Your task to perform on an android device: clear history in the chrome app Image 0: 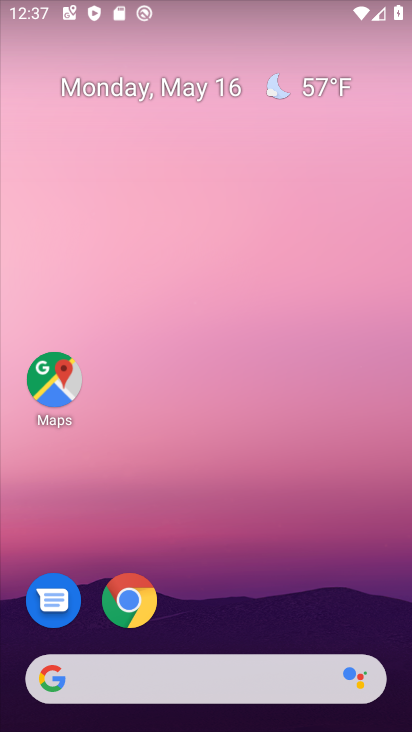
Step 0: click (145, 606)
Your task to perform on an android device: clear history in the chrome app Image 1: 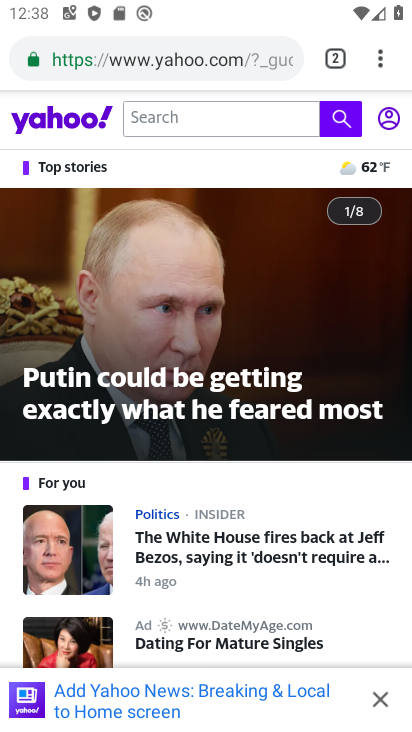
Step 1: click (383, 58)
Your task to perform on an android device: clear history in the chrome app Image 2: 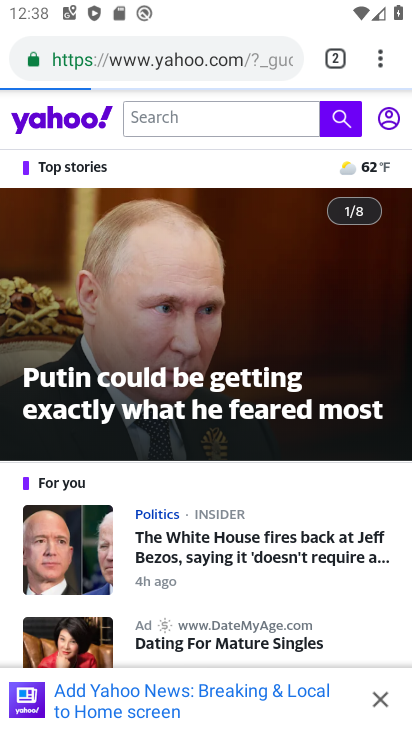
Step 2: drag from (374, 64) to (180, 324)
Your task to perform on an android device: clear history in the chrome app Image 3: 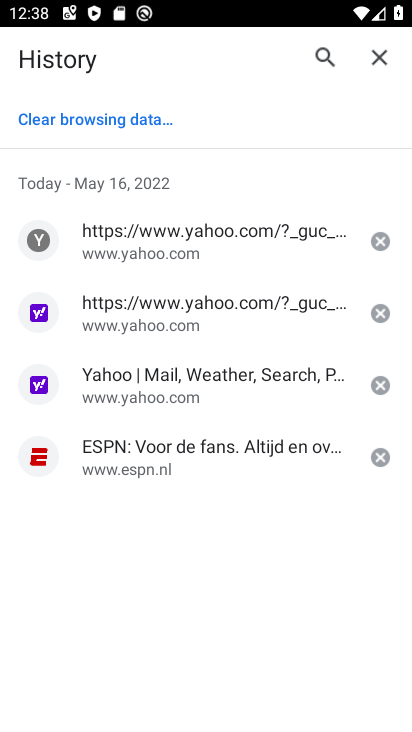
Step 3: click (97, 105)
Your task to perform on an android device: clear history in the chrome app Image 4: 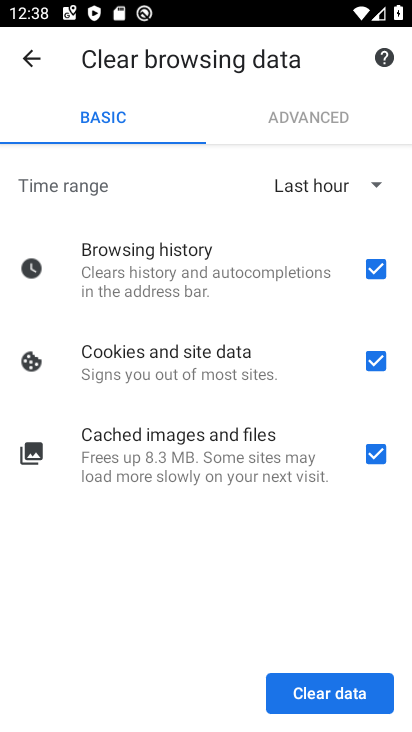
Step 4: click (321, 688)
Your task to perform on an android device: clear history in the chrome app Image 5: 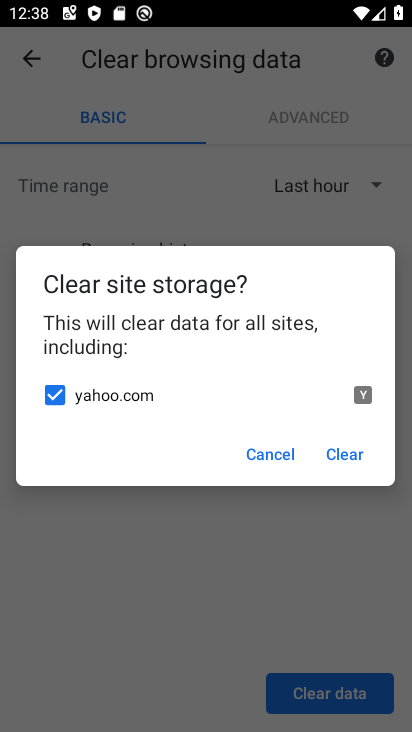
Step 5: click (346, 451)
Your task to perform on an android device: clear history in the chrome app Image 6: 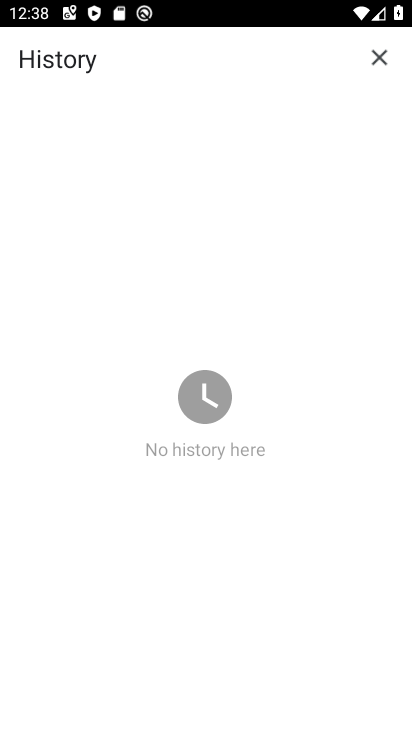
Step 6: task complete